Your task to perform on an android device: Open Chrome and go to settings Image 0: 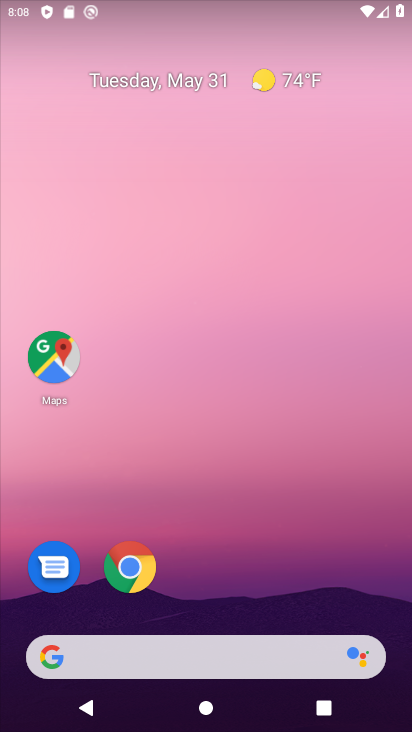
Step 0: drag from (249, 554) to (185, 13)
Your task to perform on an android device: Open Chrome and go to settings Image 1: 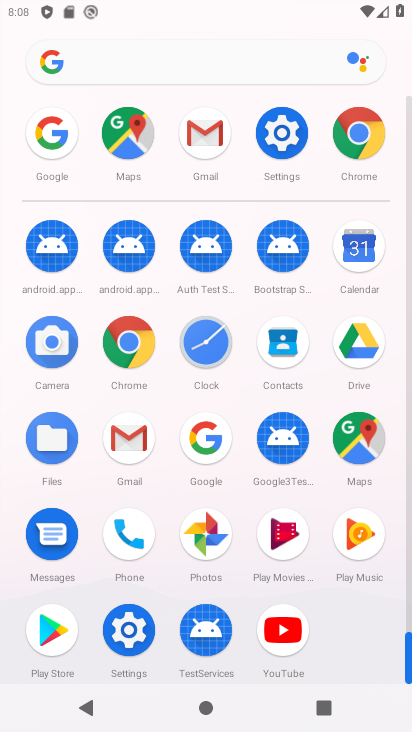
Step 1: click (290, 135)
Your task to perform on an android device: Open Chrome and go to settings Image 2: 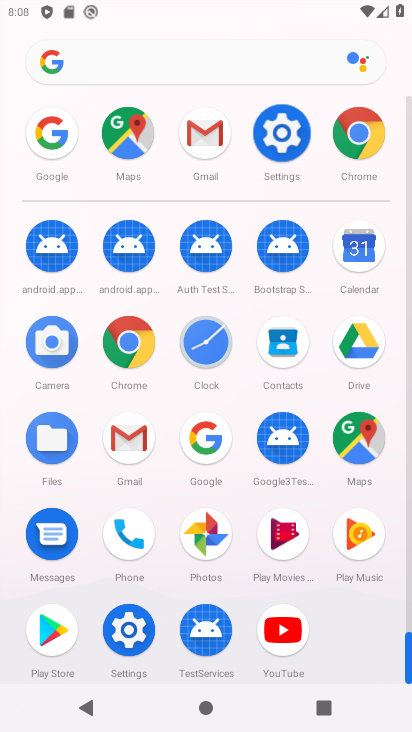
Step 2: click (293, 132)
Your task to perform on an android device: Open Chrome and go to settings Image 3: 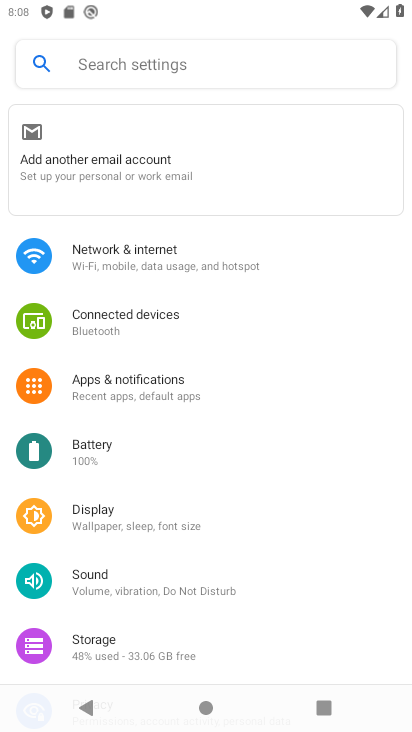
Step 3: press back button
Your task to perform on an android device: Open Chrome and go to settings Image 4: 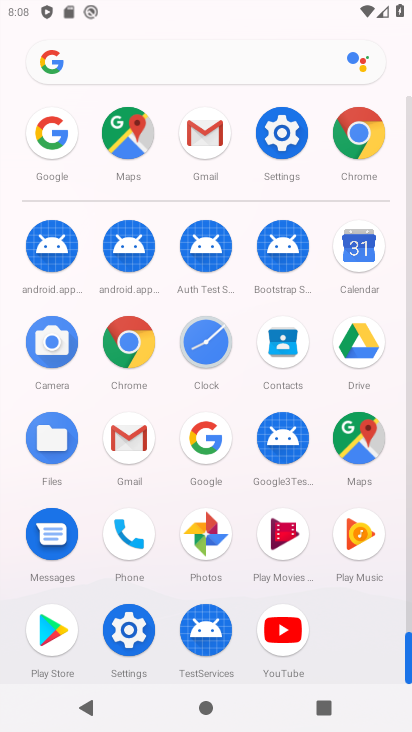
Step 4: click (364, 125)
Your task to perform on an android device: Open Chrome and go to settings Image 5: 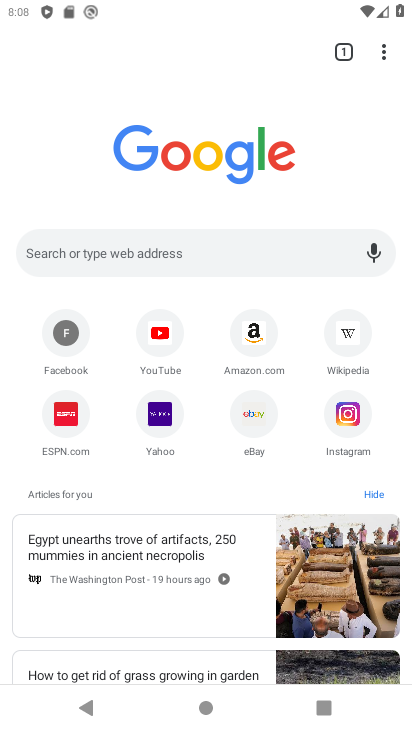
Step 5: click (383, 51)
Your task to perform on an android device: Open Chrome and go to settings Image 6: 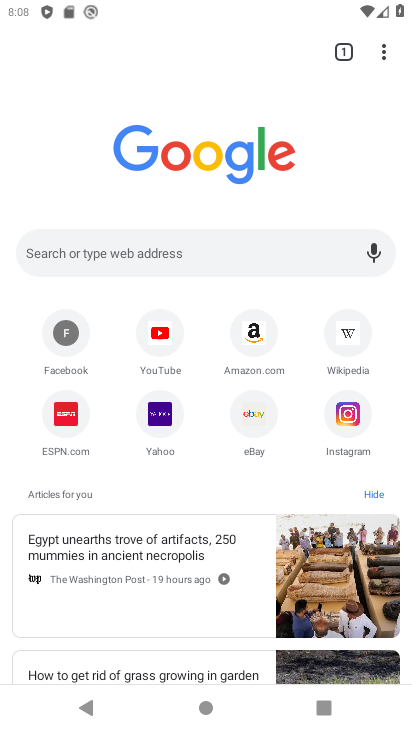
Step 6: drag from (377, 57) to (181, 435)
Your task to perform on an android device: Open Chrome and go to settings Image 7: 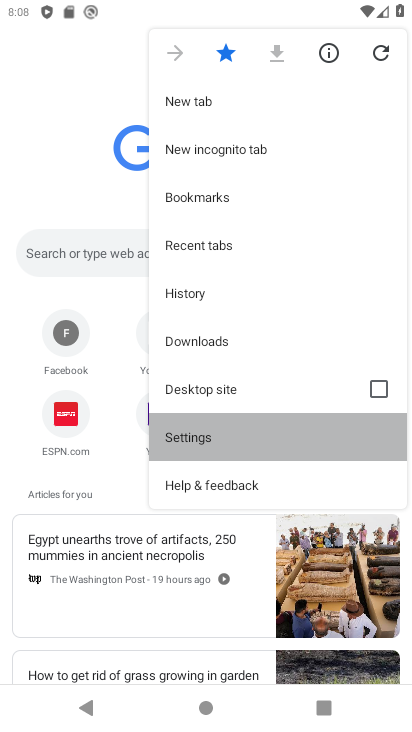
Step 7: click (181, 435)
Your task to perform on an android device: Open Chrome and go to settings Image 8: 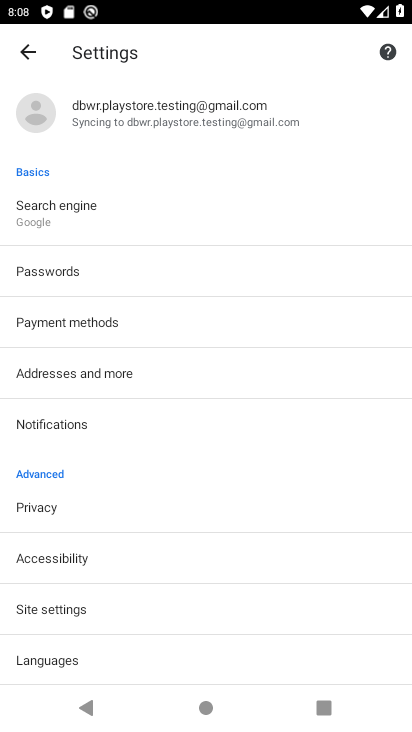
Step 8: task complete